Your task to perform on an android device: Show me popular videos on Youtube Image 0: 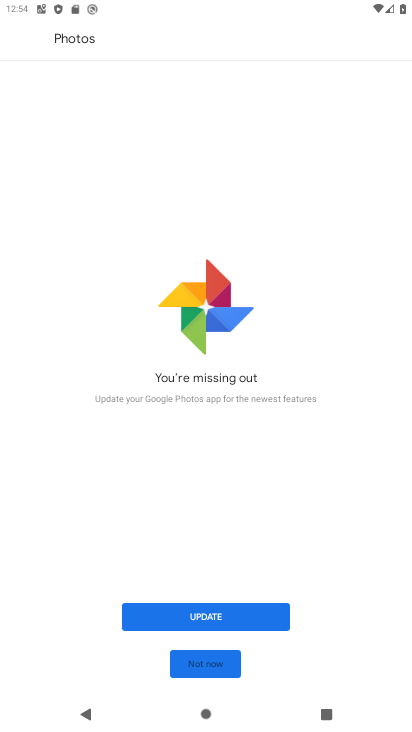
Step 0: press home button
Your task to perform on an android device: Show me popular videos on Youtube Image 1: 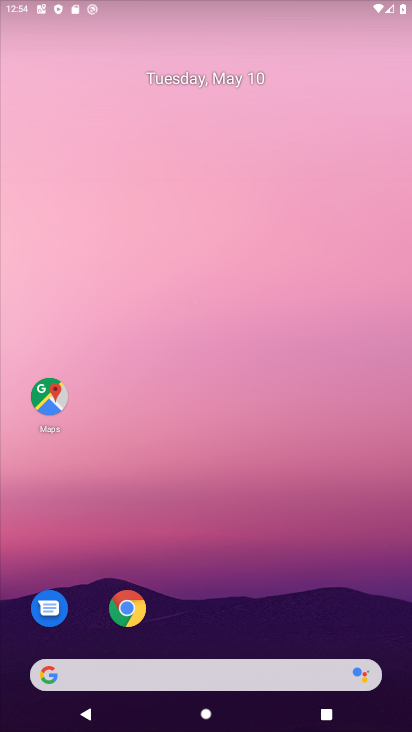
Step 1: drag from (312, 622) to (333, 333)
Your task to perform on an android device: Show me popular videos on Youtube Image 2: 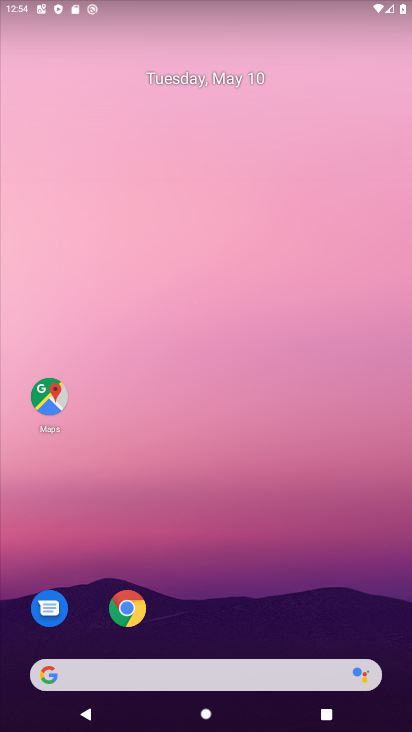
Step 2: drag from (314, 578) to (318, 204)
Your task to perform on an android device: Show me popular videos on Youtube Image 3: 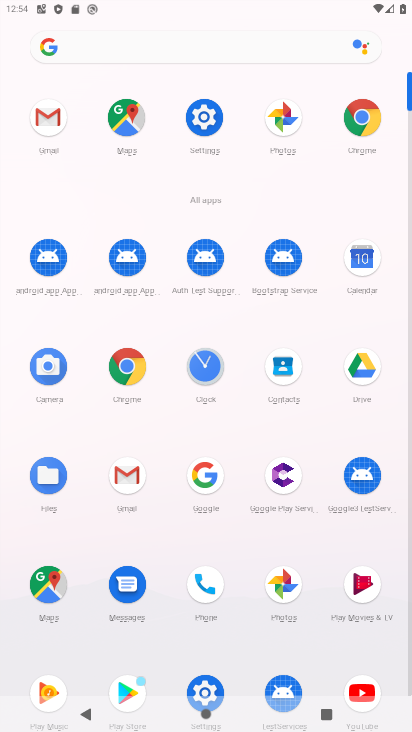
Step 3: click (368, 689)
Your task to perform on an android device: Show me popular videos on Youtube Image 4: 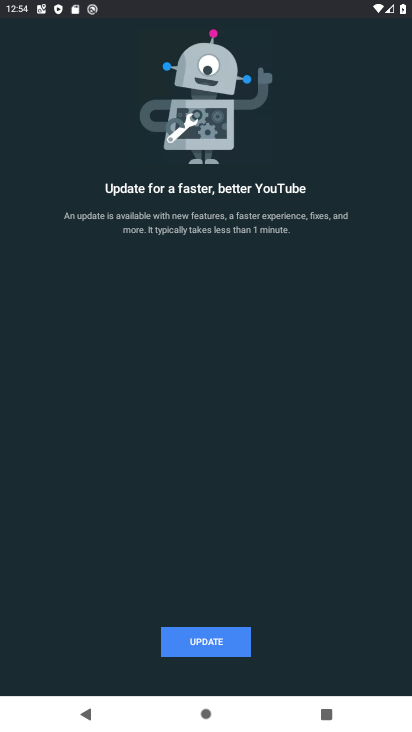
Step 4: click (222, 643)
Your task to perform on an android device: Show me popular videos on Youtube Image 5: 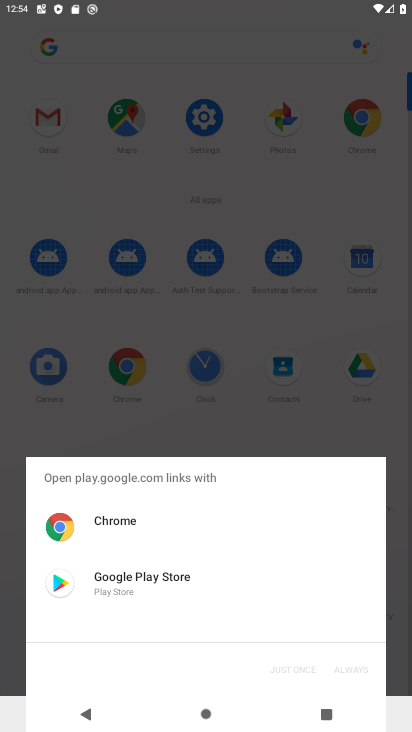
Step 5: click (199, 577)
Your task to perform on an android device: Show me popular videos on Youtube Image 6: 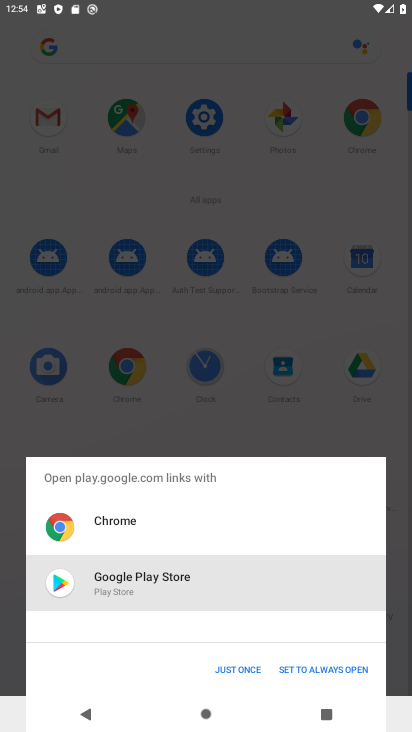
Step 6: click (253, 671)
Your task to perform on an android device: Show me popular videos on Youtube Image 7: 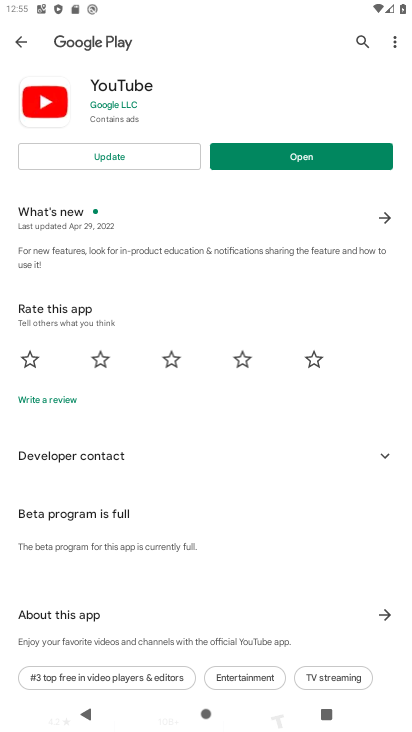
Step 7: click (162, 164)
Your task to perform on an android device: Show me popular videos on Youtube Image 8: 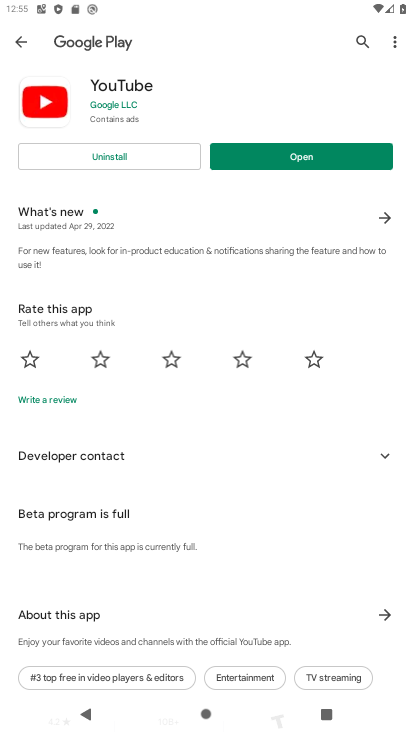
Step 8: click (277, 155)
Your task to perform on an android device: Show me popular videos on Youtube Image 9: 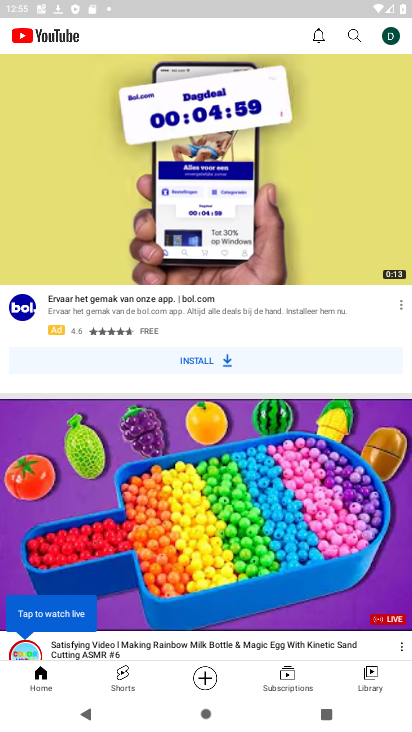
Step 9: click (355, 39)
Your task to perform on an android device: Show me popular videos on Youtube Image 10: 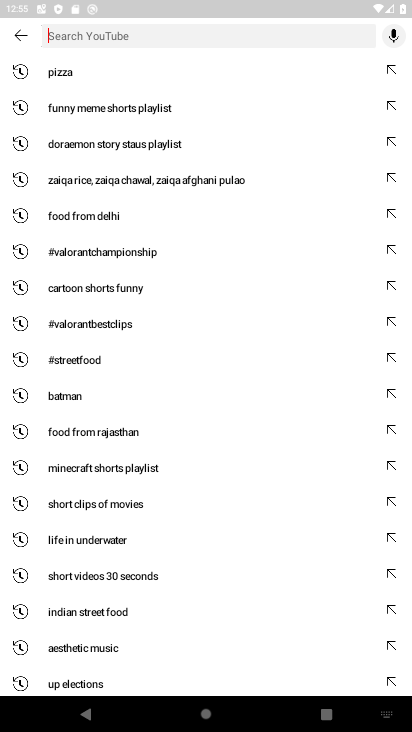
Step 10: type "popular video"
Your task to perform on an android device: Show me popular videos on Youtube Image 11: 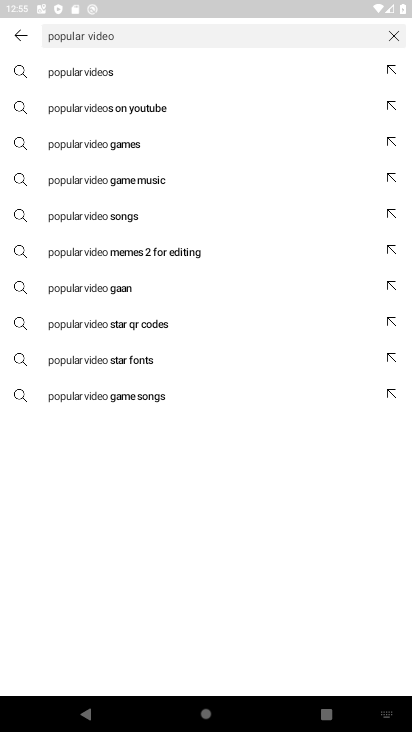
Step 11: click (104, 69)
Your task to perform on an android device: Show me popular videos on Youtube Image 12: 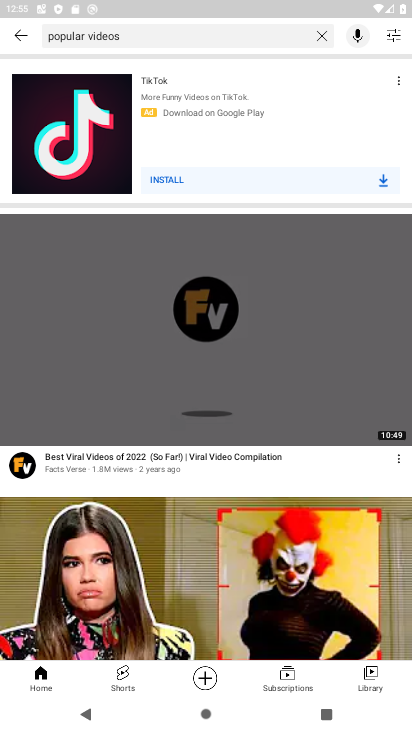
Step 12: task complete